Your task to perform on an android device: Open network settings Image 0: 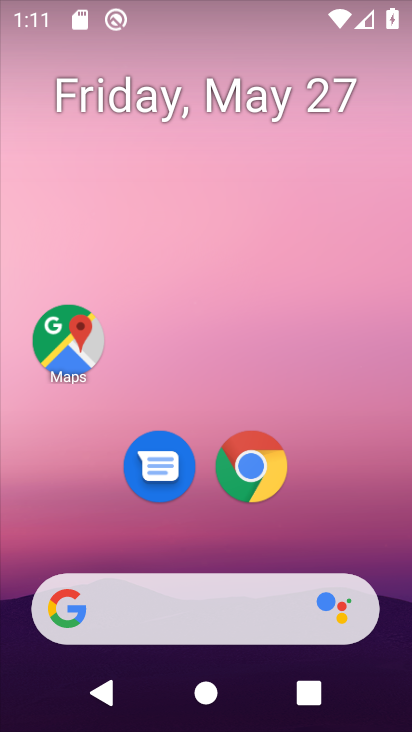
Step 0: drag from (78, 561) to (160, 97)
Your task to perform on an android device: Open network settings Image 1: 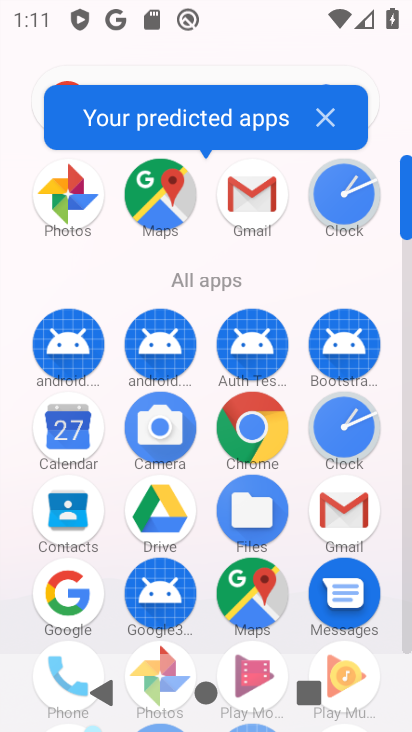
Step 1: drag from (162, 502) to (306, 97)
Your task to perform on an android device: Open network settings Image 2: 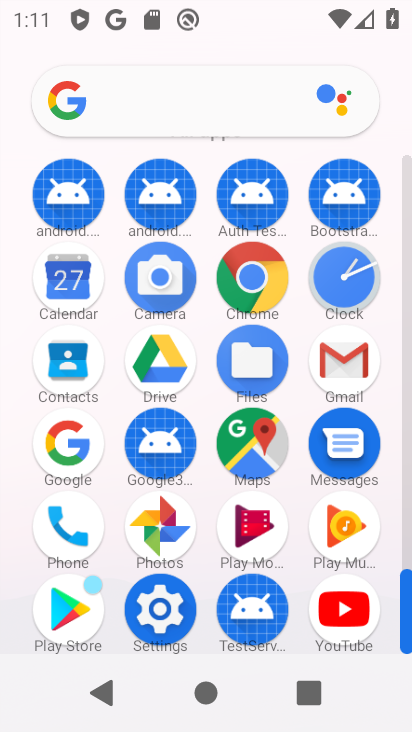
Step 2: click (180, 611)
Your task to perform on an android device: Open network settings Image 3: 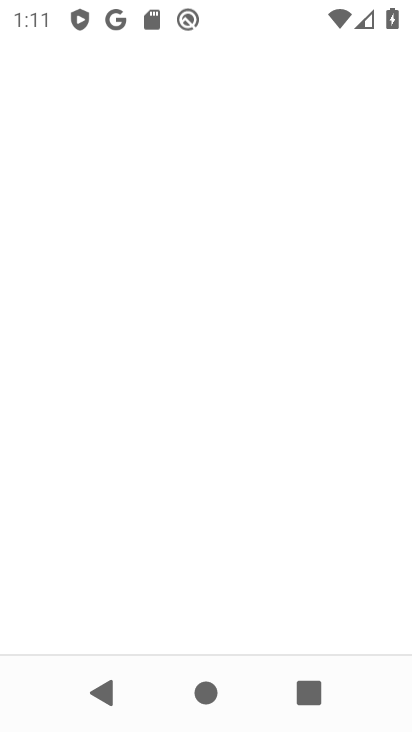
Step 3: drag from (113, 660) to (193, 407)
Your task to perform on an android device: Open network settings Image 4: 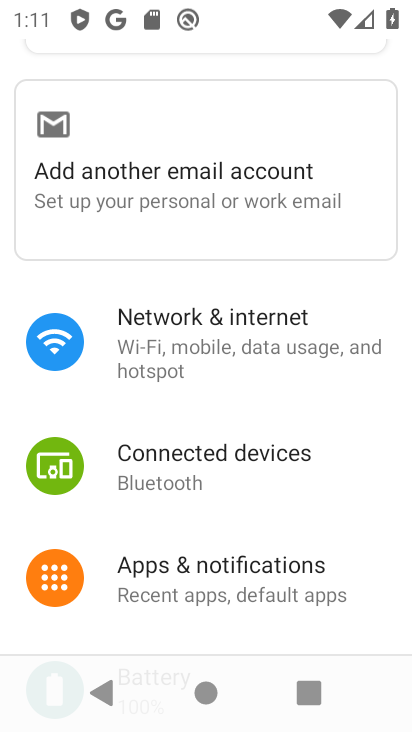
Step 4: drag from (155, 628) to (202, 445)
Your task to perform on an android device: Open network settings Image 5: 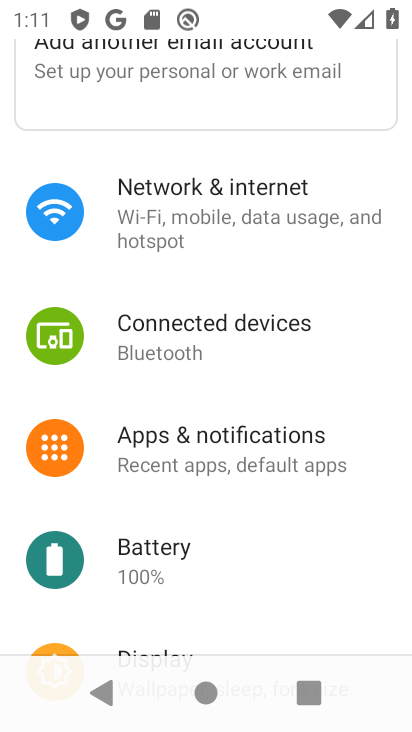
Step 5: click (213, 237)
Your task to perform on an android device: Open network settings Image 6: 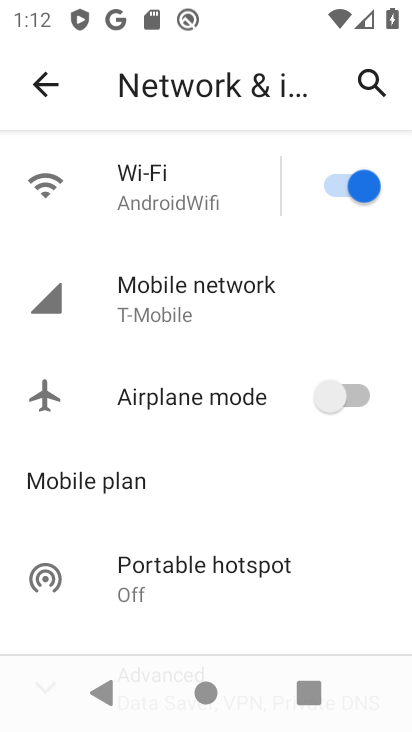
Step 6: click (193, 303)
Your task to perform on an android device: Open network settings Image 7: 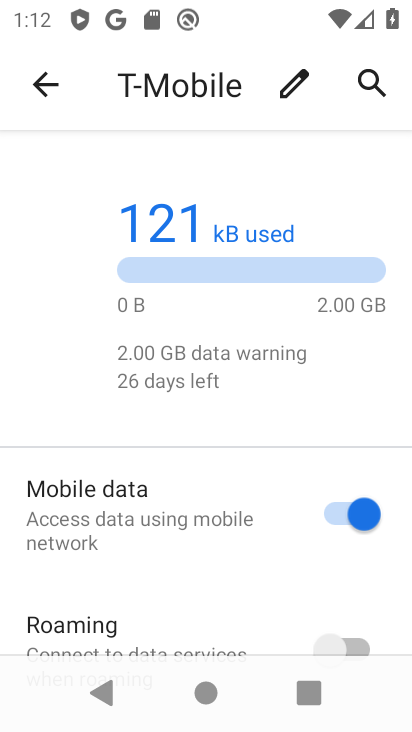
Step 7: task complete